Your task to perform on an android device: delete location history Image 0: 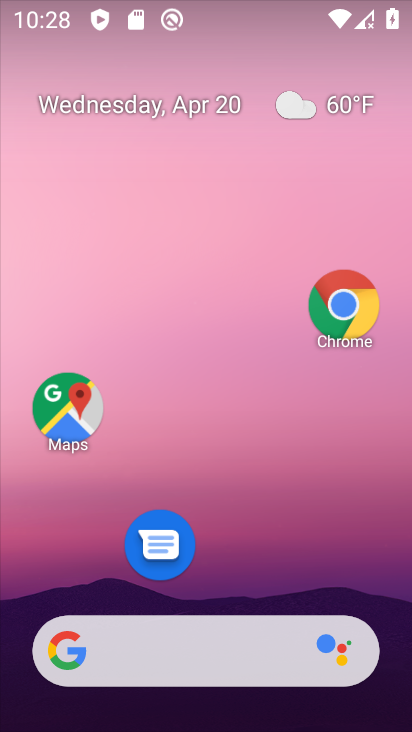
Step 0: drag from (301, 616) to (243, 272)
Your task to perform on an android device: delete location history Image 1: 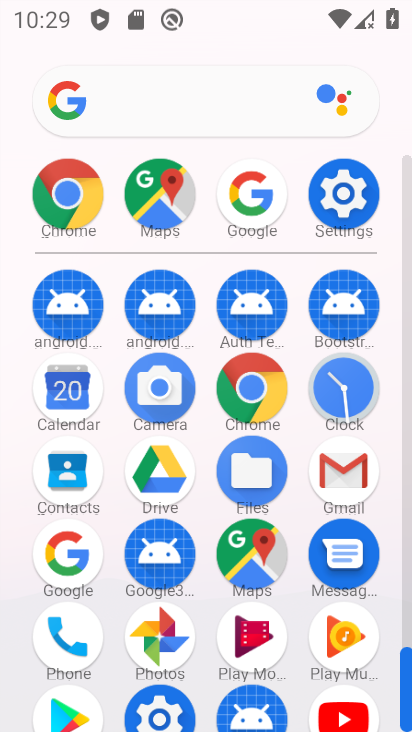
Step 1: click (346, 200)
Your task to perform on an android device: delete location history Image 2: 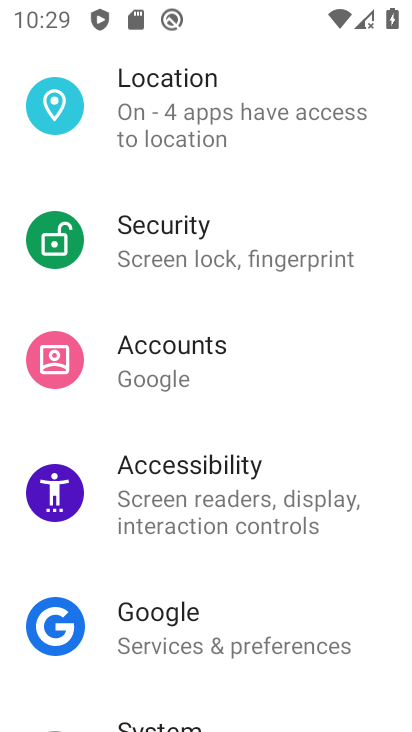
Step 2: click (222, 135)
Your task to perform on an android device: delete location history Image 3: 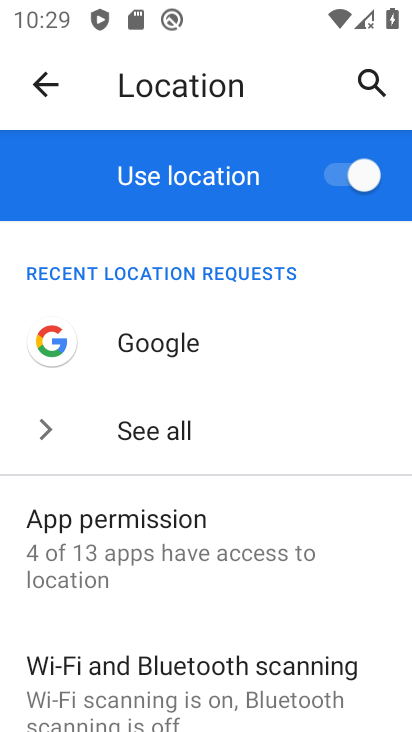
Step 3: drag from (188, 568) to (235, 258)
Your task to perform on an android device: delete location history Image 4: 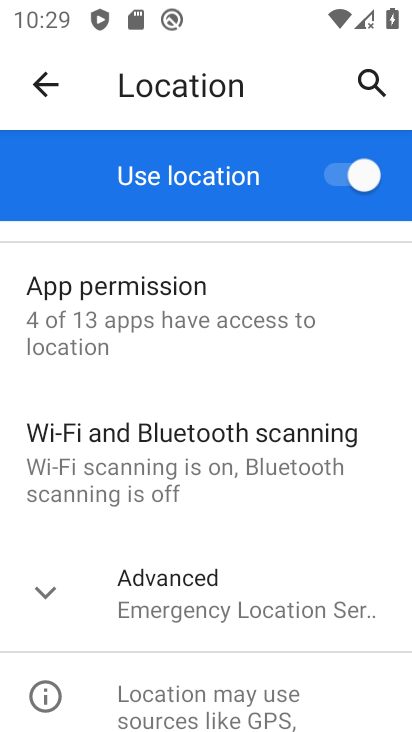
Step 4: drag from (235, 487) to (240, 349)
Your task to perform on an android device: delete location history Image 5: 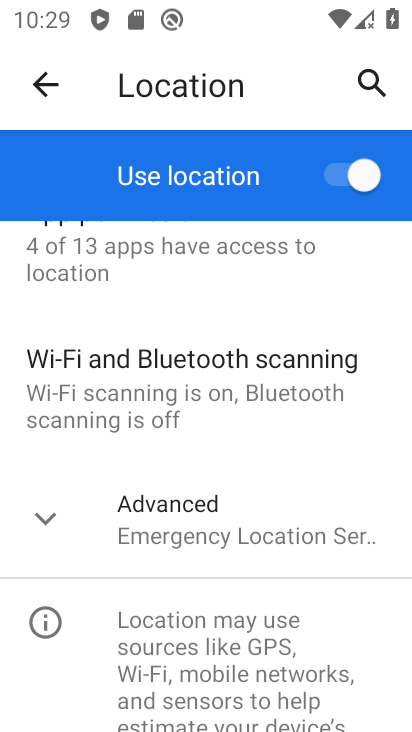
Step 5: click (215, 520)
Your task to perform on an android device: delete location history Image 6: 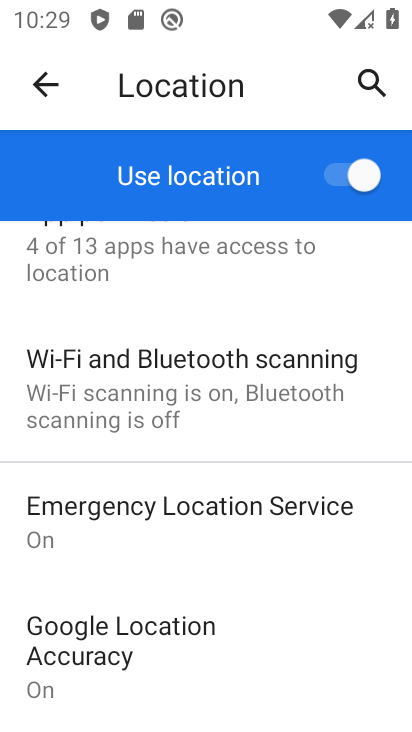
Step 6: drag from (206, 552) to (247, 304)
Your task to perform on an android device: delete location history Image 7: 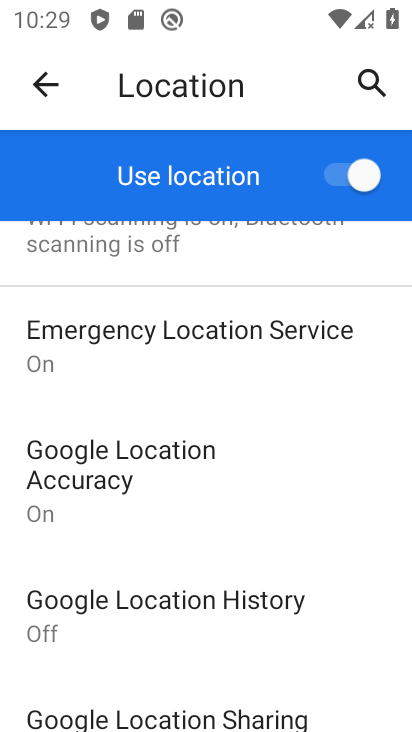
Step 7: click (278, 623)
Your task to perform on an android device: delete location history Image 8: 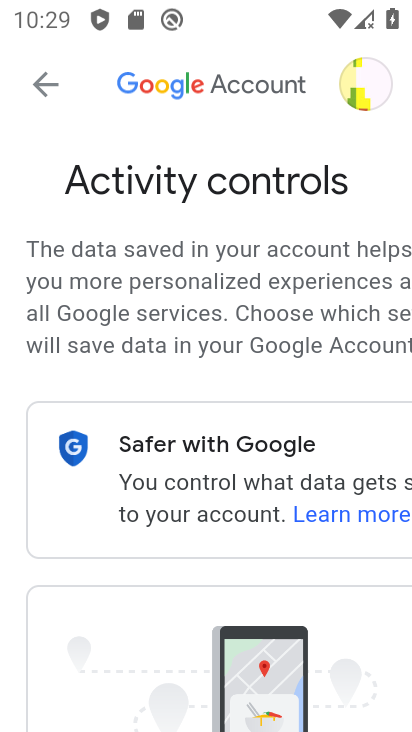
Step 8: drag from (266, 499) to (84, 106)
Your task to perform on an android device: delete location history Image 9: 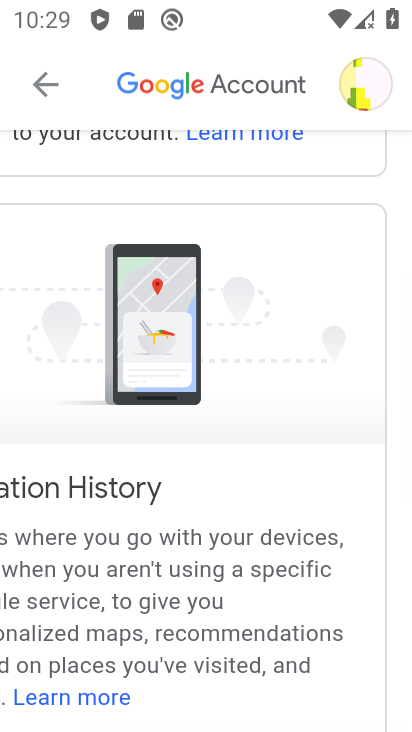
Step 9: drag from (167, 554) to (210, 213)
Your task to perform on an android device: delete location history Image 10: 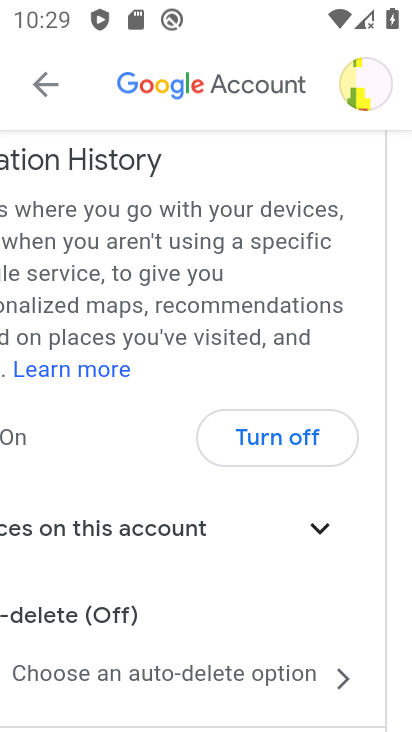
Step 10: click (165, 670)
Your task to perform on an android device: delete location history Image 11: 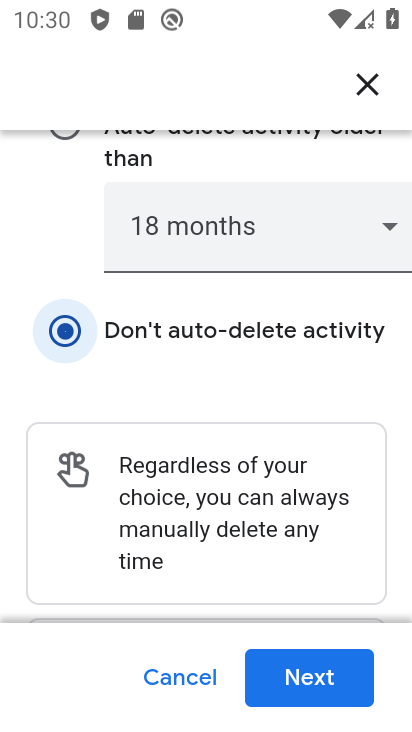
Step 11: click (317, 686)
Your task to perform on an android device: delete location history Image 12: 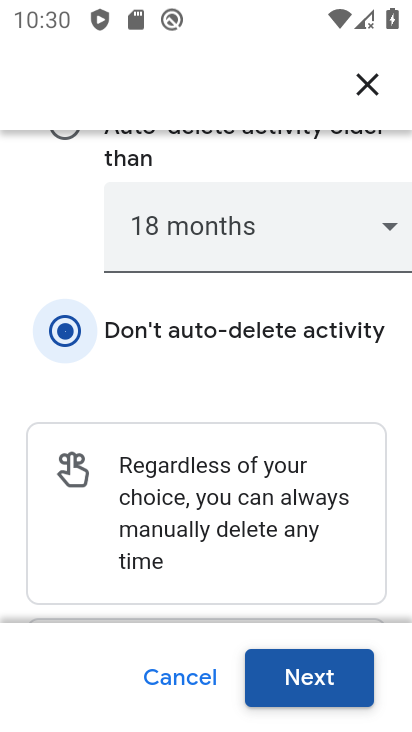
Step 12: click (331, 684)
Your task to perform on an android device: delete location history Image 13: 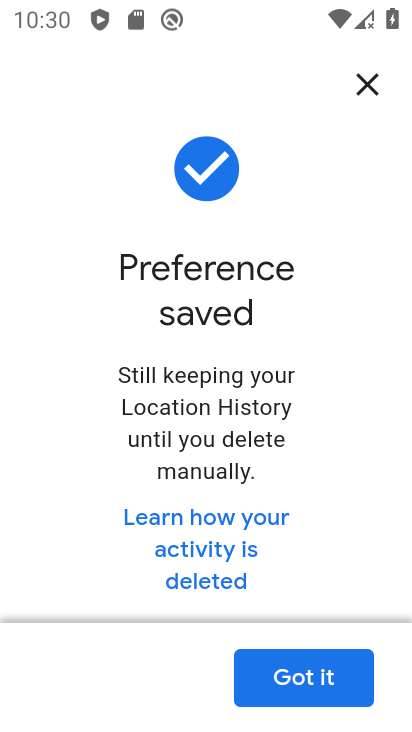
Step 13: click (330, 693)
Your task to perform on an android device: delete location history Image 14: 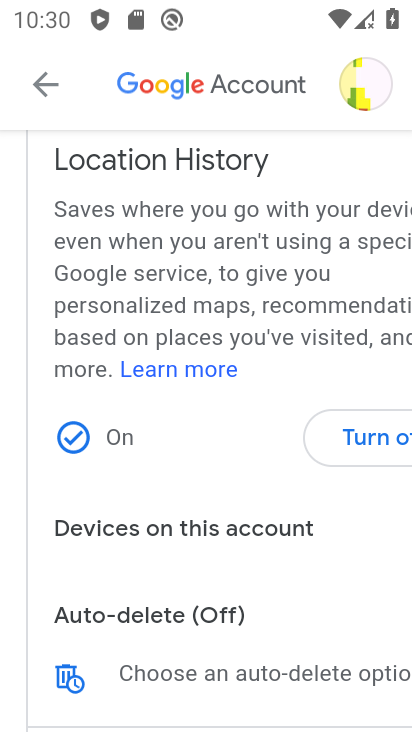
Step 14: task complete